Your task to perform on an android device: Open settings Image 0: 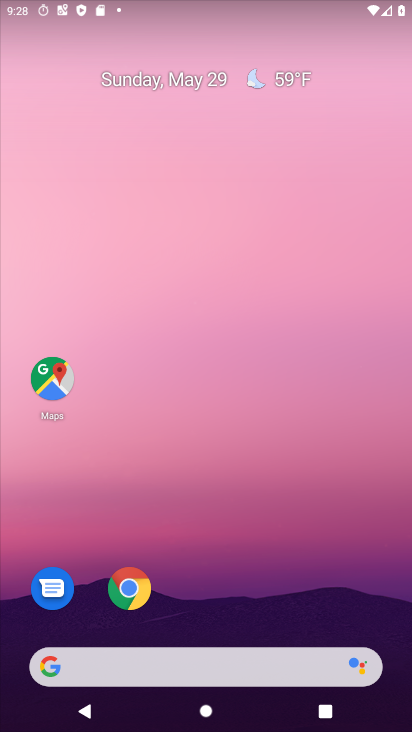
Step 0: drag from (204, 621) to (209, 128)
Your task to perform on an android device: Open settings Image 1: 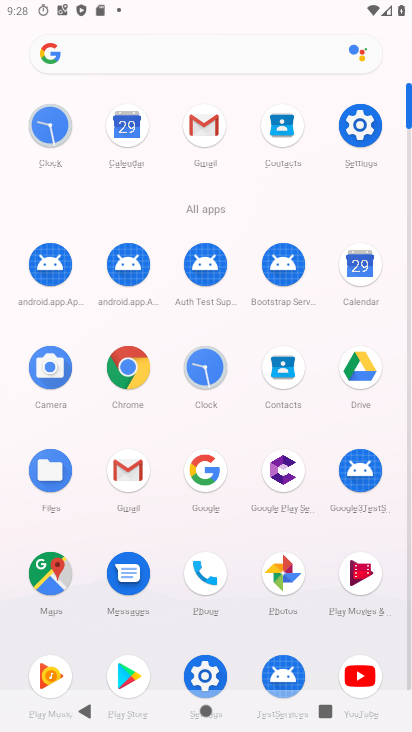
Step 1: click (358, 144)
Your task to perform on an android device: Open settings Image 2: 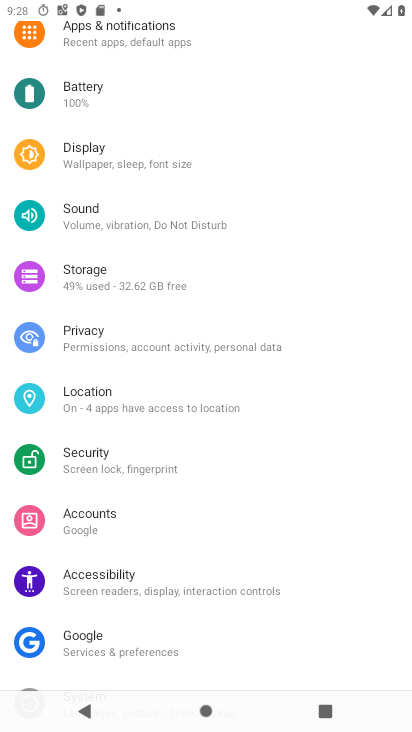
Step 2: task complete